Your task to perform on an android device: Open accessibility settings Image 0: 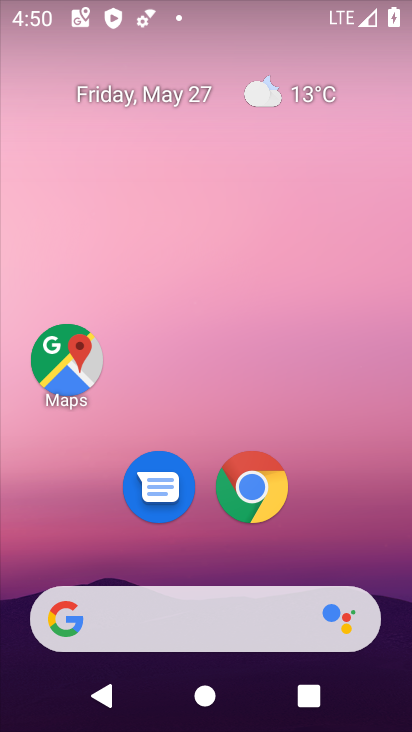
Step 0: drag from (321, 497) to (299, 97)
Your task to perform on an android device: Open accessibility settings Image 1: 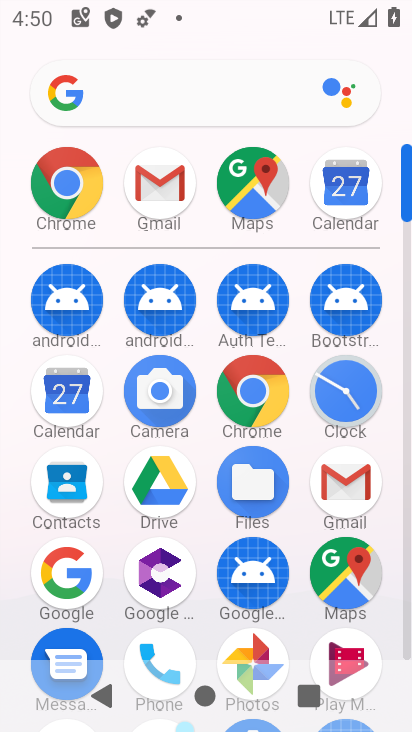
Step 1: drag from (195, 580) to (245, 251)
Your task to perform on an android device: Open accessibility settings Image 2: 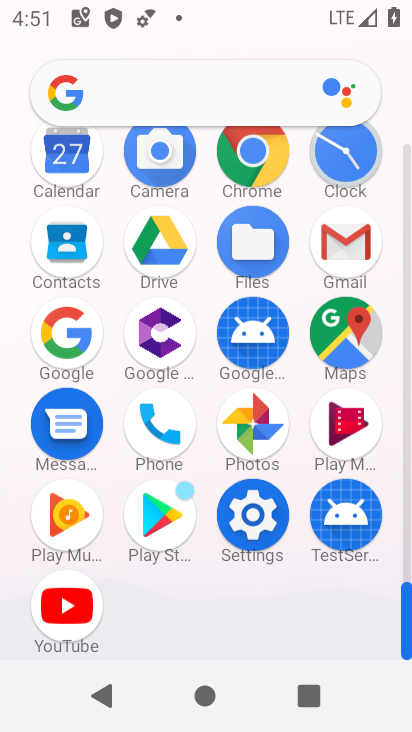
Step 2: click (254, 526)
Your task to perform on an android device: Open accessibility settings Image 3: 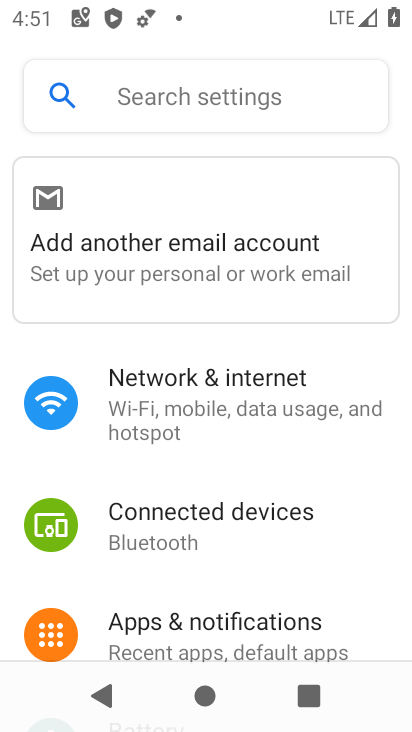
Step 3: drag from (216, 548) to (253, 121)
Your task to perform on an android device: Open accessibility settings Image 4: 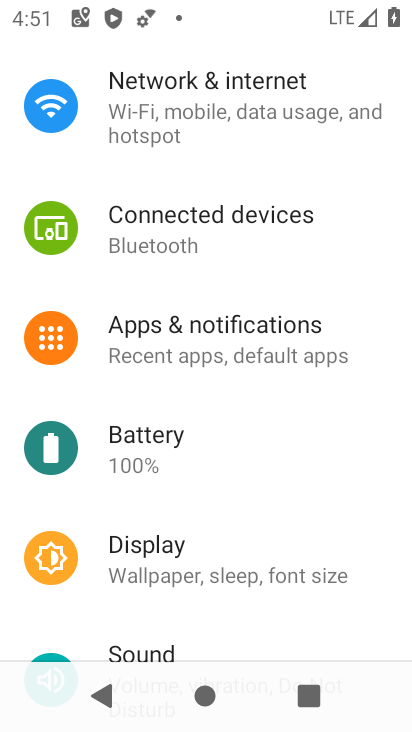
Step 4: drag from (193, 492) to (307, 192)
Your task to perform on an android device: Open accessibility settings Image 5: 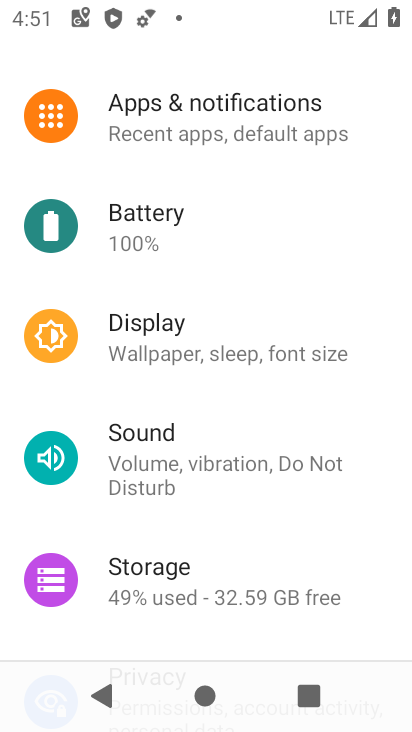
Step 5: drag from (210, 469) to (278, 99)
Your task to perform on an android device: Open accessibility settings Image 6: 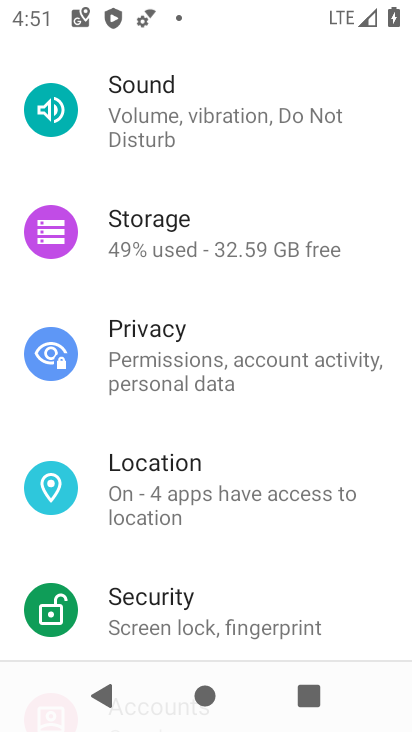
Step 6: drag from (216, 485) to (257, 80)
Your task to perform on an android device: Open accessibility settings Image 7: 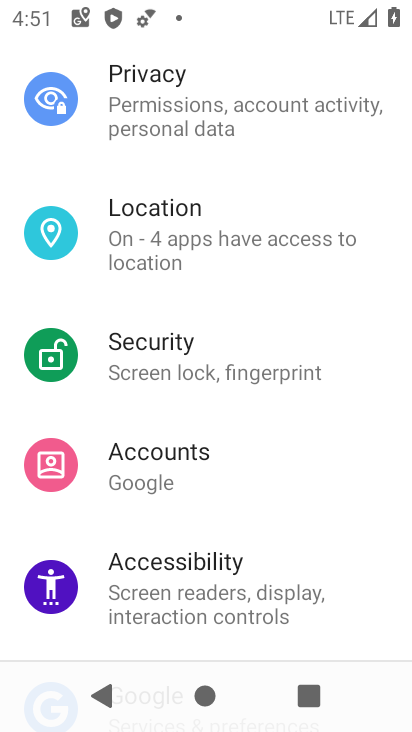
Step 7: drag from (198, 460) to (249, 165)
Your task to perform on an android device: Open accessibility settings Image 8: 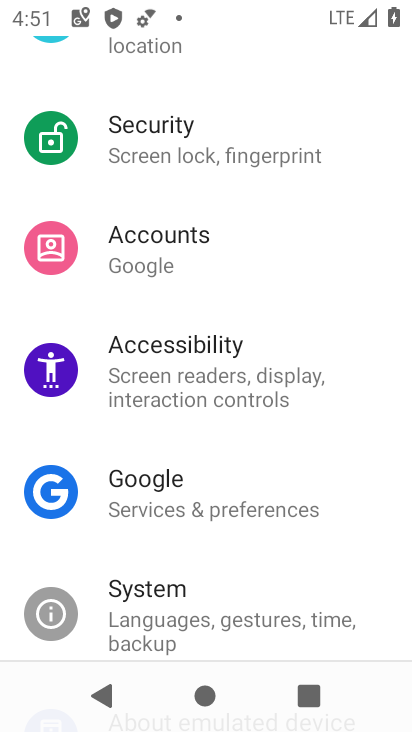
Step 8: click (186, 367)
Your task to perform on an android device: Open accessibility settings Image 9: 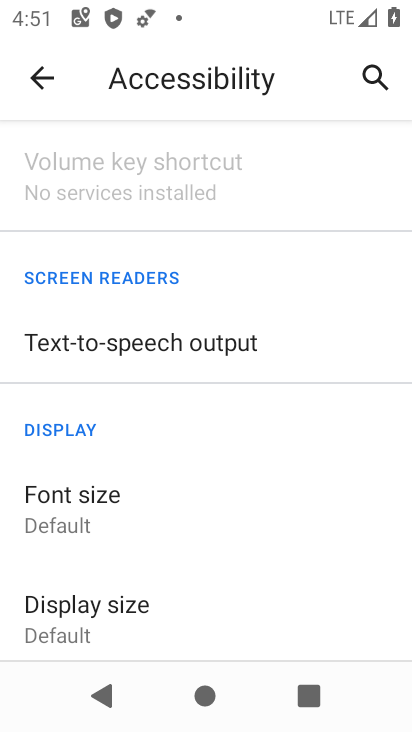
Step 9: task complete